Your task to perform on an android device: change alarm snooze length Image 0: 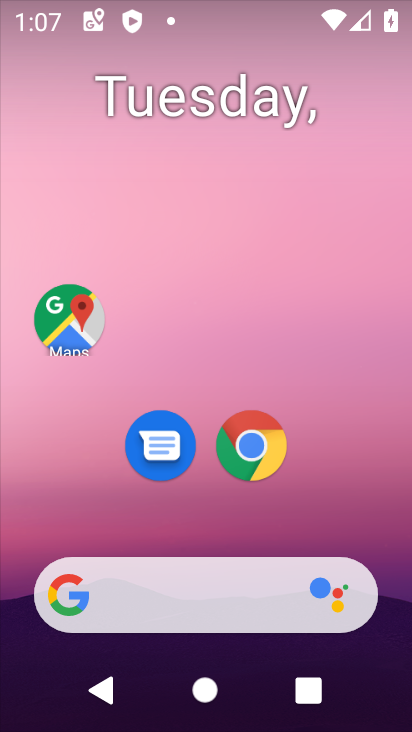
Step 0: drag from (347, 465) to (384, 11)
Your task to perform on an android device: change alarm snooze length Image 1: 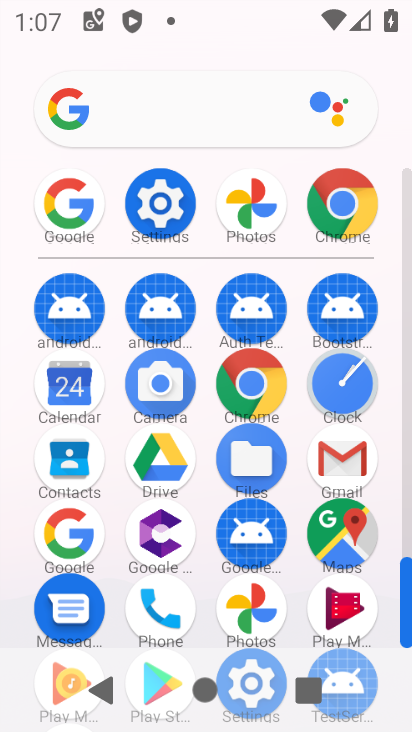
Step 1: click (350, 405)
Your task to perform on an android device: change alarm snooze length Image 2: 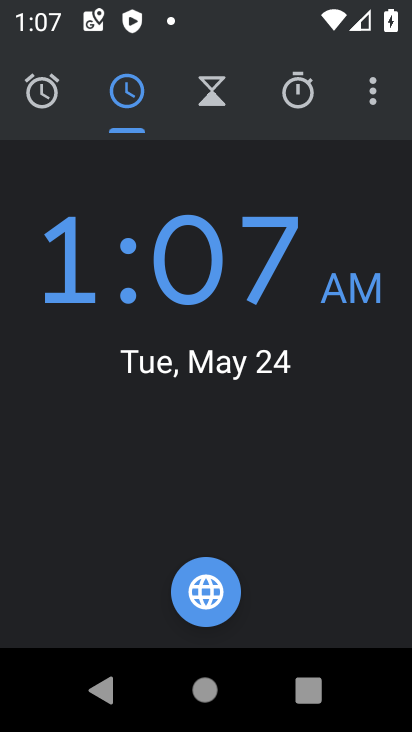
Step 2: click (372, 76)
Your task to perform on an android device: change alarm snooze length Image 3: 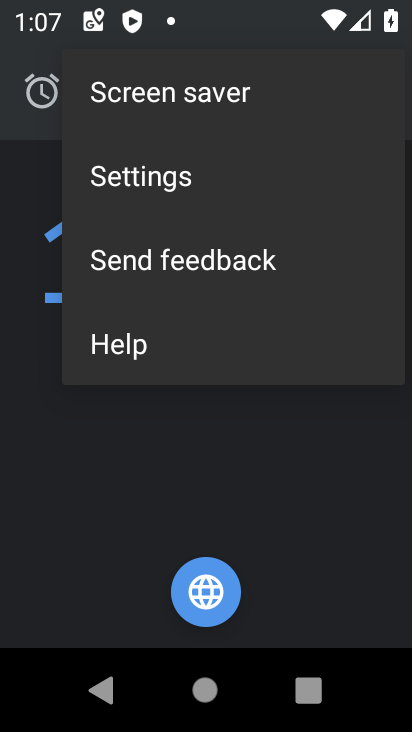
Step 3: click (184, 178)
Your task to perform on an android device: change alarm snooze length Image 4: 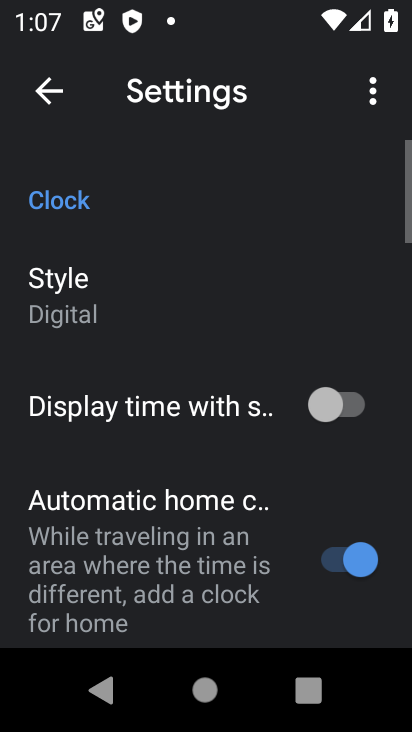
Step 4: drag from (166, 502) to (160, 240)
Your task to perform on an android device: change alarm snooze length Image 5: 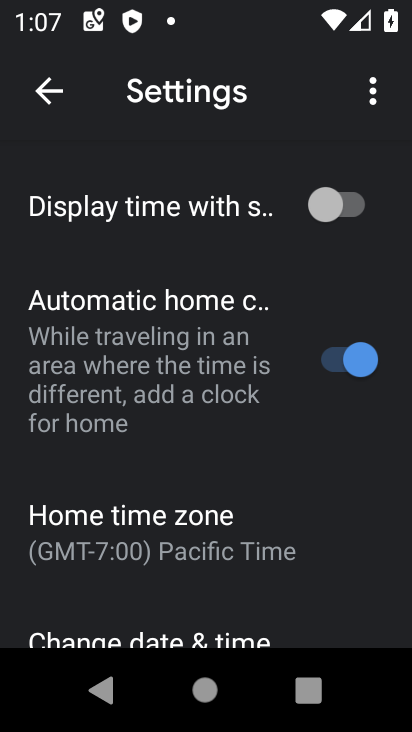
Step 5: drag from (109, 567) to (153, 209)
Your task to perform on an android device: change alarm snooze length Image 6: 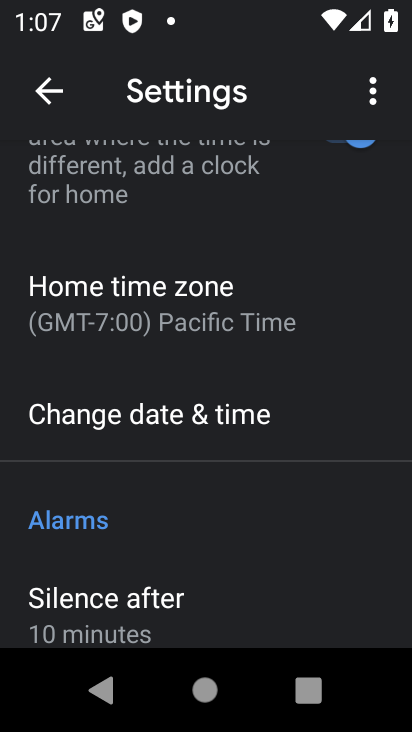
Step 6: drag from (169, 551) to (254, 185)
Your task to perform on an android device: change alarm snooze length Image 7: 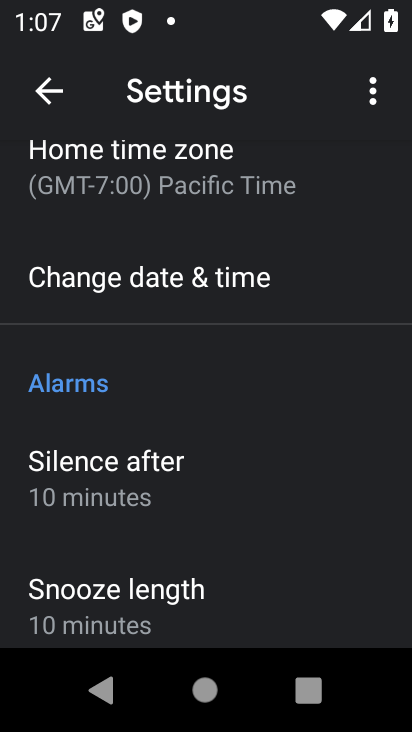
Step 7: drag from (167, 556) to (228, 164)
Your task to perform on an android device: change alarm snooze length Image 8: 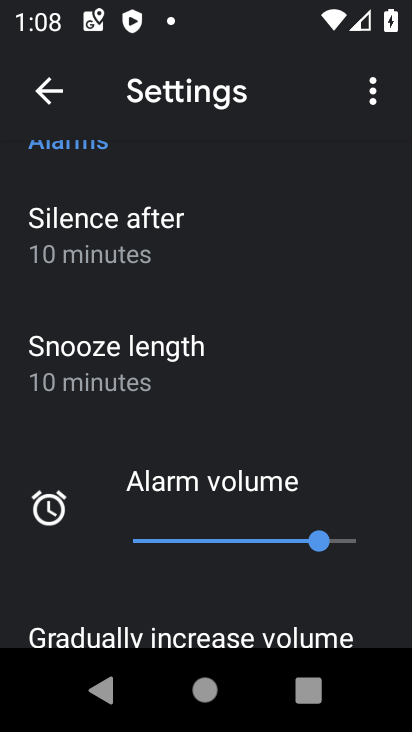
Step 8: click (132, 372)
Your task to perform on an android device: change alarm snooze length Image 9: 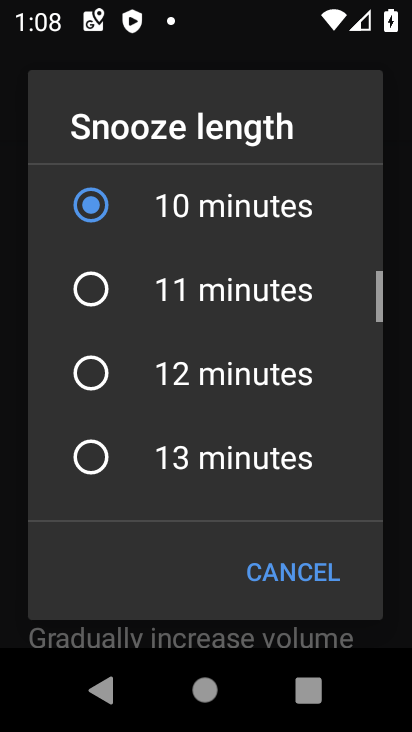
Step 9: click (100, 379)
Your task to perform on an android device: change alarm snooze length Image 10: 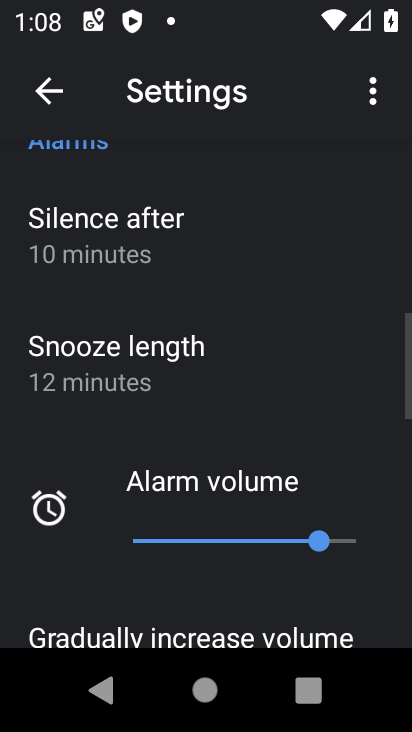
Step 10: task complete